Your task to perform on an android device: turn off priority inbox in the gmail app Image 0: 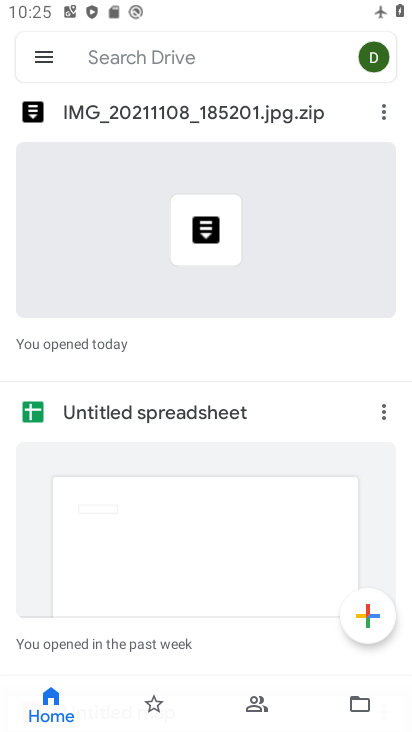
Step 0: press home button
Your task to perform on an android device: turn off priority inbox in the gmail app Image 1: 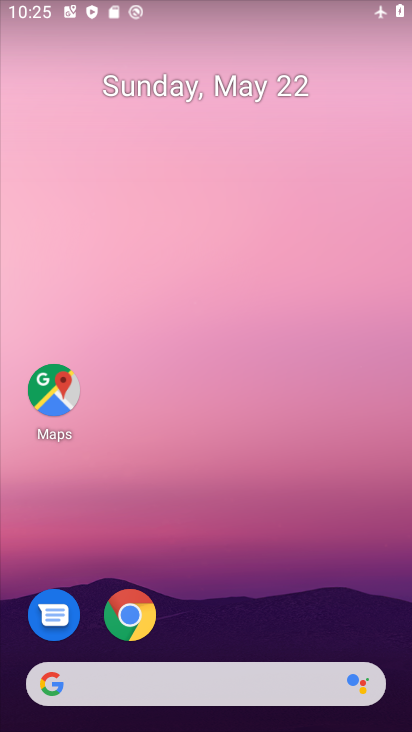
Step 1: drag from (289, 572) to (238, 89)
Your task to perform on an android device: turn off priority inbox in the gmail app Image 2: 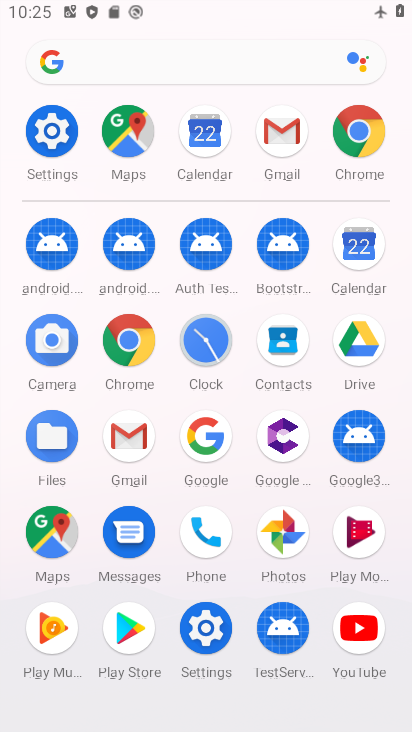
Step 2: click (281, 136)
Your task to perform on an android device: turn off priority inbox in the gmail app Image 3: 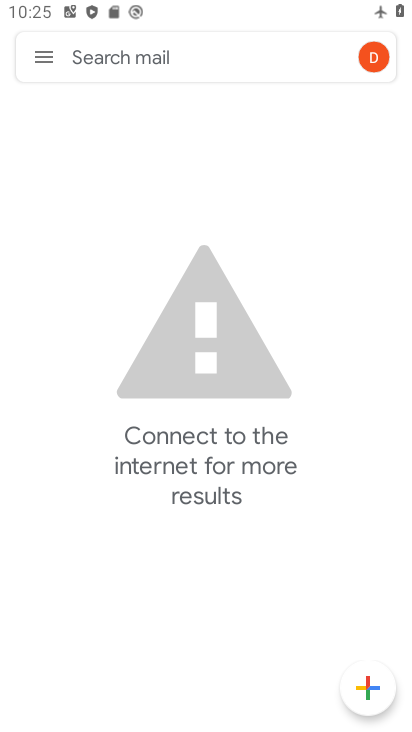
Step 3: click (48, 49)
Your task to perform on an android device: turn off priority inbox in the gmail app Image 4: 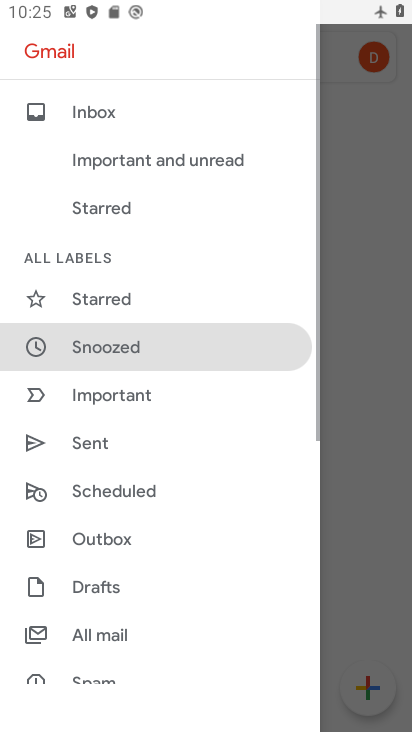
Step 4: drag from (151, 663) to (145, 35)
Your task to perform on an android device: turn off priority inbox in the gmail app Image 5: 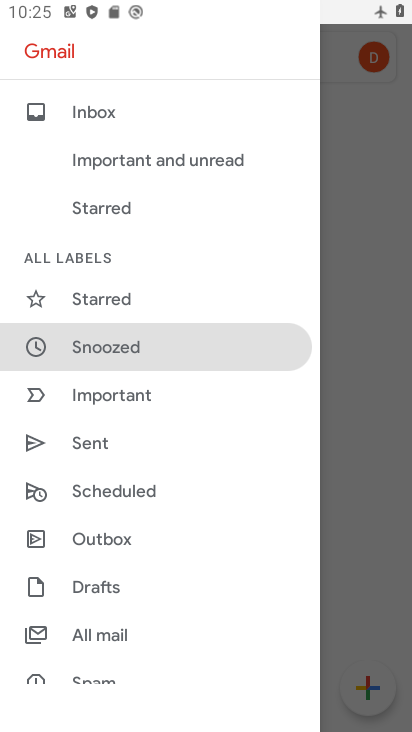
Step 5: drag from (81, 490) to (198, 54)
Your task to perform on an android device: turn off priority inbox in the gmail app Image 6: 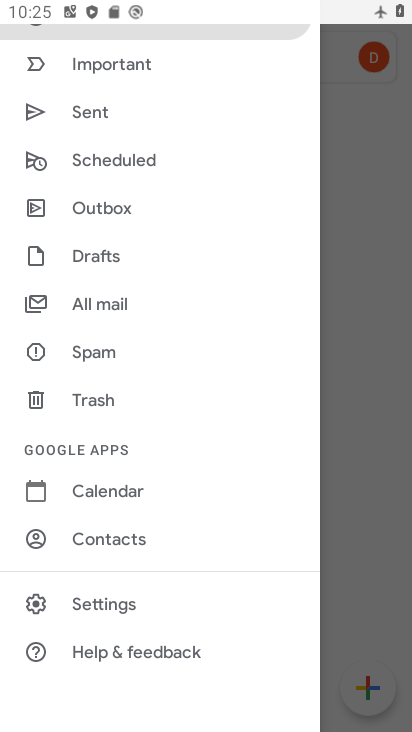
Step 6: click (88, 605)
Your task to perform on an android device: turn off priority inbox in the gmail app Image 7: 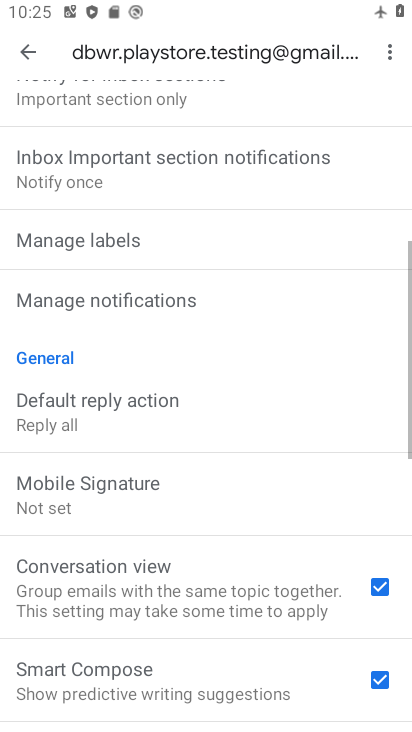
Step 7: drag from (150, 221) to (138, 731)
Your task to perform on an android device: turn off priority inbox in the gmail app Image 8: 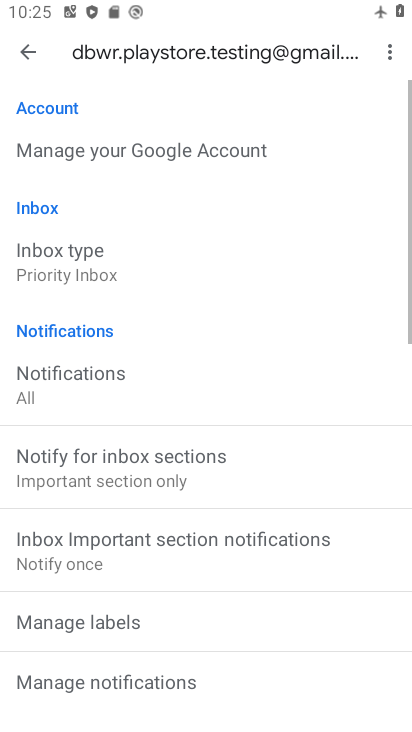
Step 8: drag from (148, 201) to (142, 504)
Your task to perform on an android device: turn off priority inbox in the gmail app Image 9: 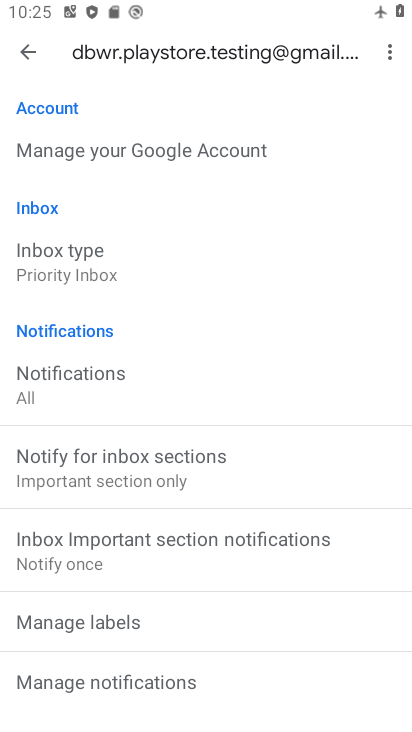
Step 9: click (106, 259)
Your task to perform on an android device: turn off priority inbox in the gmail app Image 10: 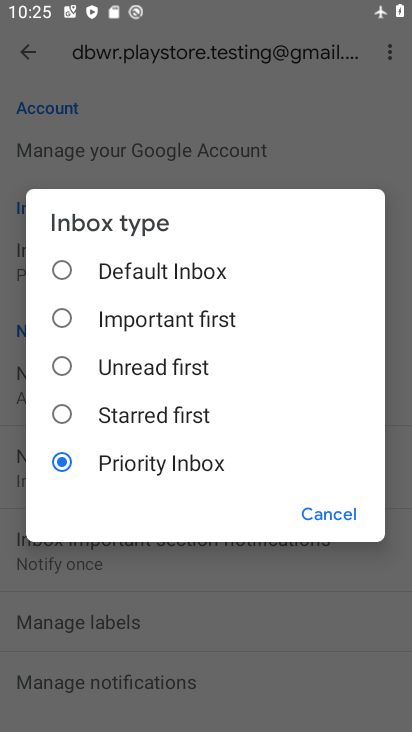
Step 10: task complete